Your task to perform on an android device: clear history in the chrome app Image 0: 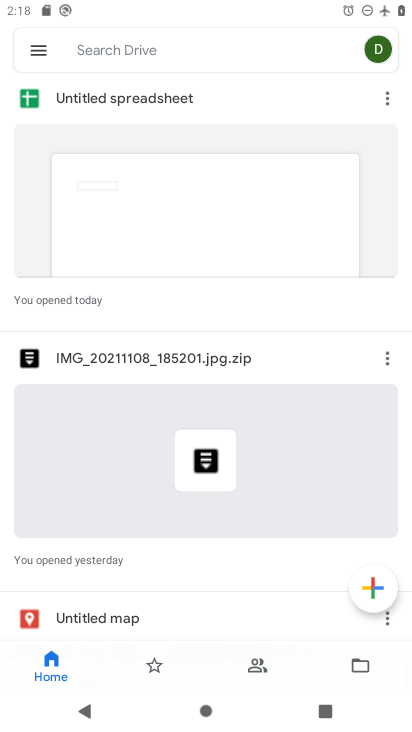
Step 0: press home button
Your task to perform on an android device: clear history in the chrome app Image 1: 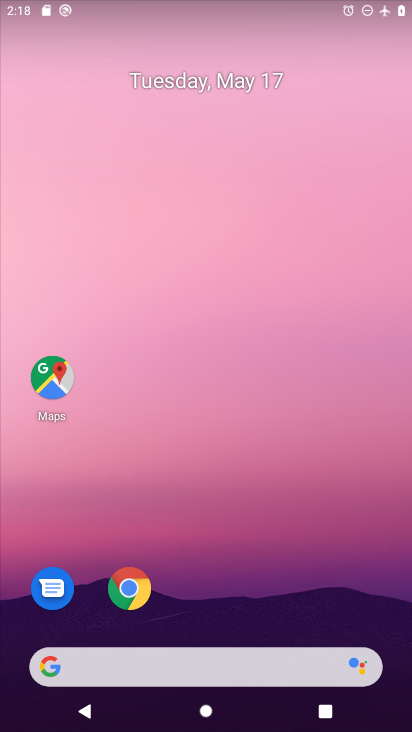
Step 1: click (129, 584)
Your task to perform on an android device: clear history in the chrome app Image 2: 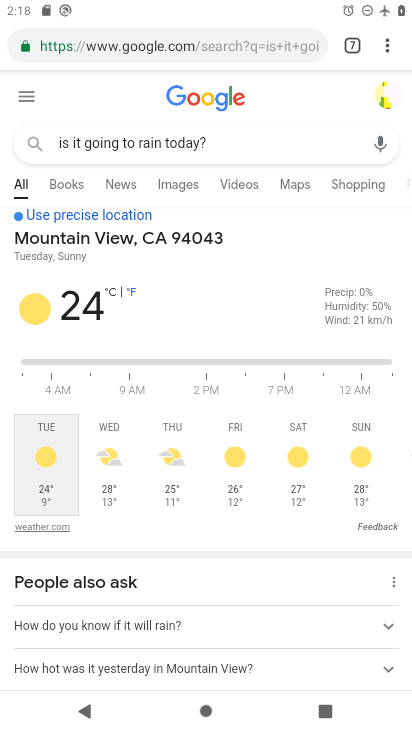
Step 2: click (387, 44)
Your task to perform on an android device: clear history in the chrome app Image 3: 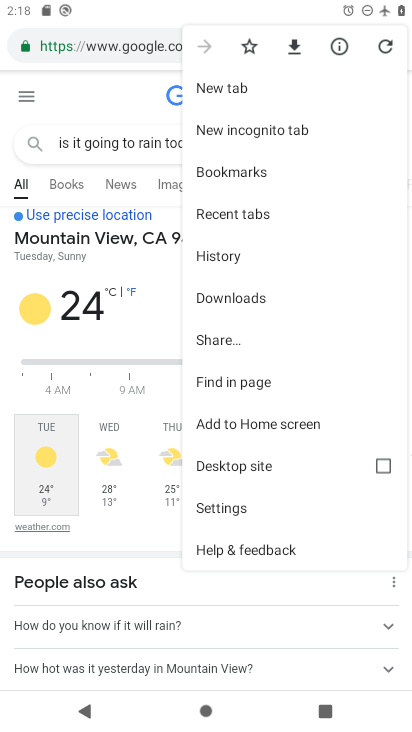
Step 3: click (233, 252)
Your task to perform on an android device: clear history in the chrome app Image 4: 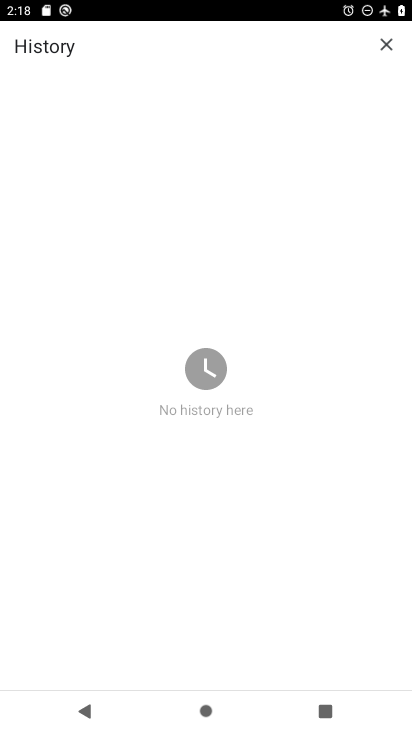
Step 4: click (233, 252)
Your task to perform on an android device: clear history in the chrome app Image 5: 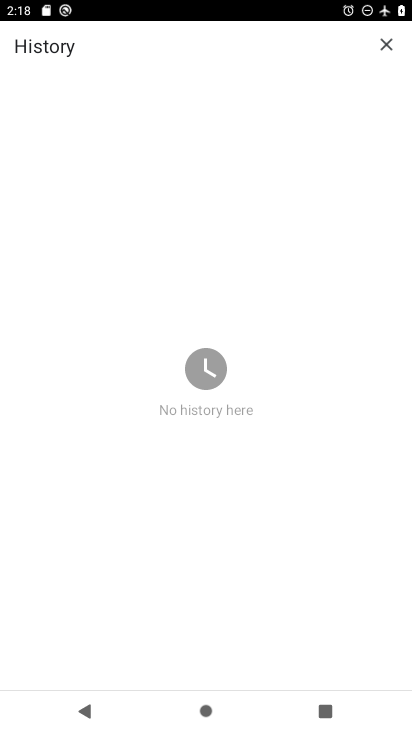
Step 5: task complete